Your task to perform on an android device: set default search engine in the chrome app Image 0: 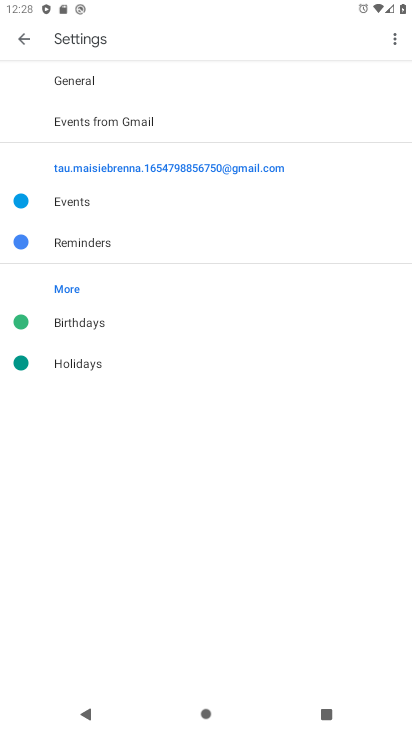
Step 0: press home button
Your task to perform on an android device: set default search engine in the chrome app Image 1: 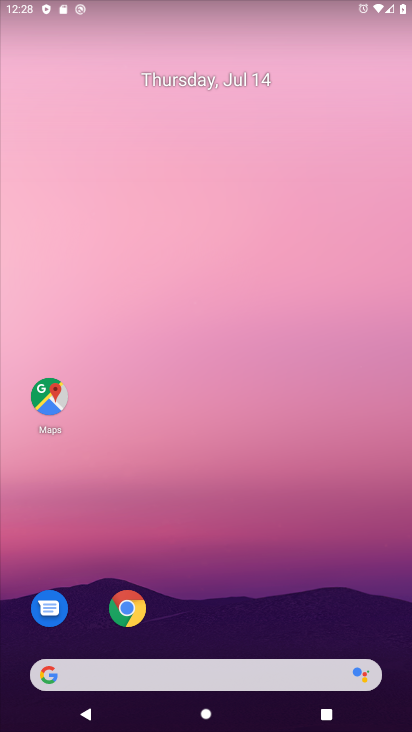
Step 1: click (127, 610)
Your task to perform on an android device: set default search engine in the chrome app Image 2: 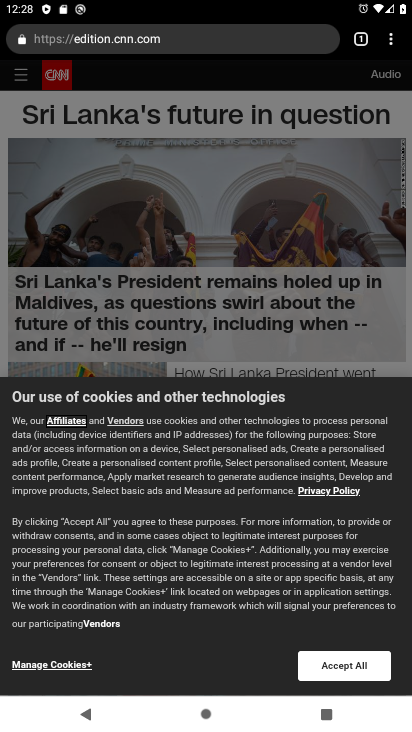
Step 2: click (393, 41)
Your task to perform on an android device: set default search engine in the chrome app Image 3: 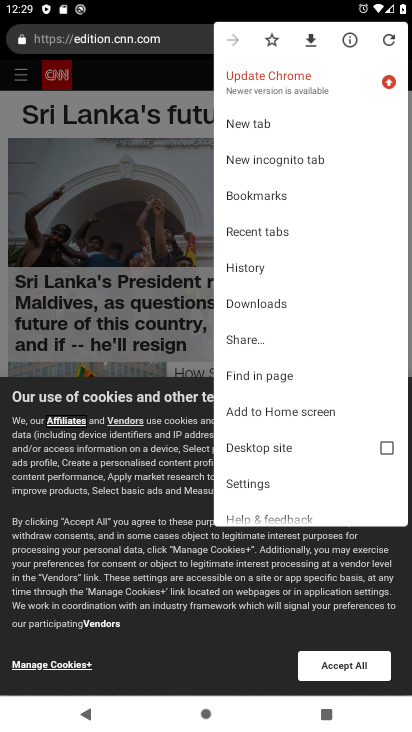
Step 3: click (256, 480)
Your task to perform on an android device: set default search engine in the chrome app Image 4: 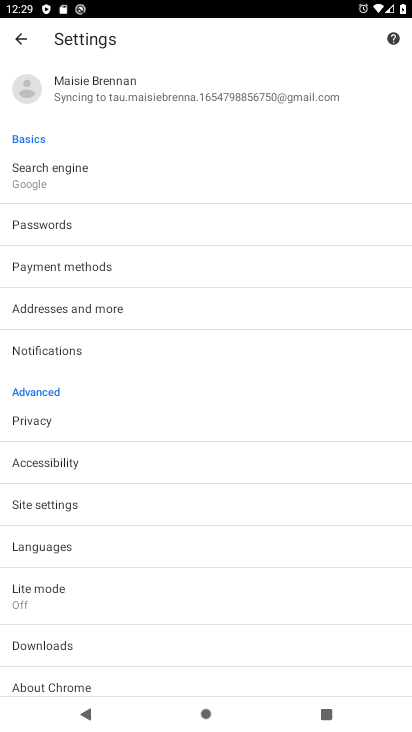
Step 4: click (51, 177)
Your task to perform on an android device: set default search engine in the chrome app Image 5: 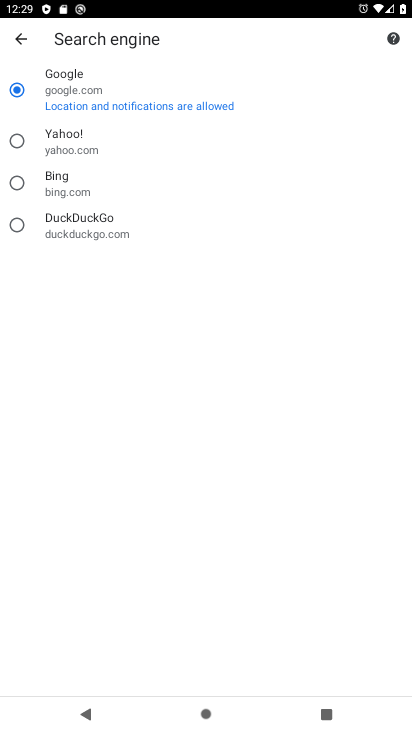
Step 5: click (17, 92)
Your task to perform on an android device: set default search engine in the chrome app Image 6: 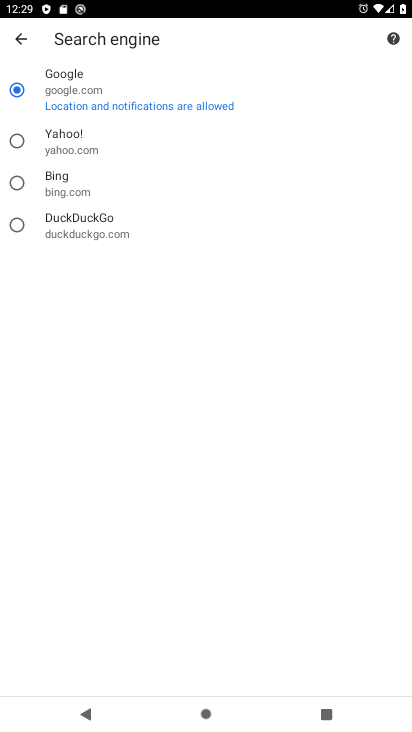
Step 6: task complete